Your task to perform on an android device: toggle airplane mode Image 0: 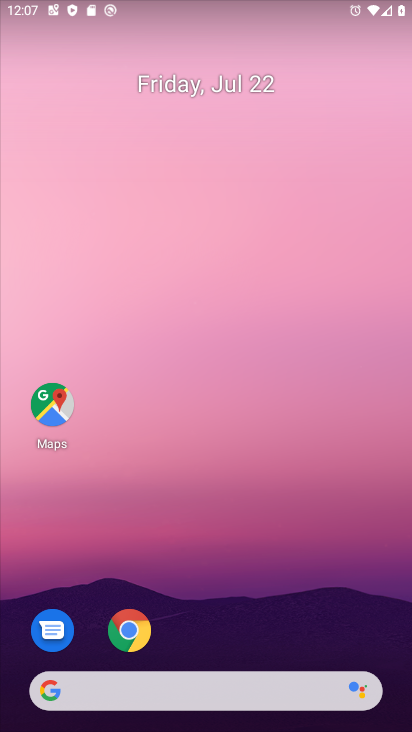
Step 0: drag from (226, 591) to (76, 50)
Your task to perform on an android device: toggle airplane mode Image 1: 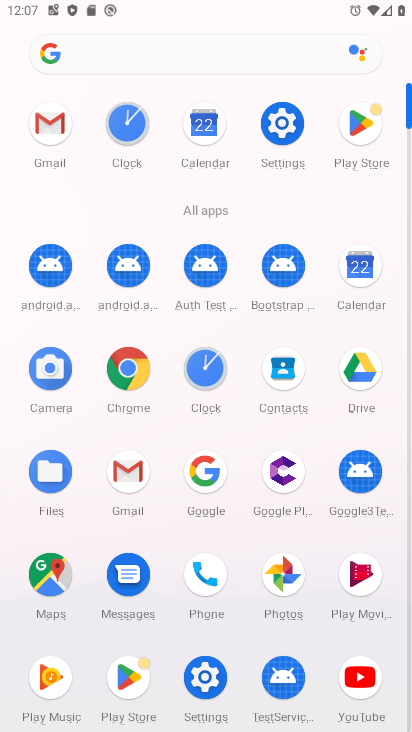
Step 1: click (284, 130)
Your task to perform on an android device: toggle airplane mode Image 2: 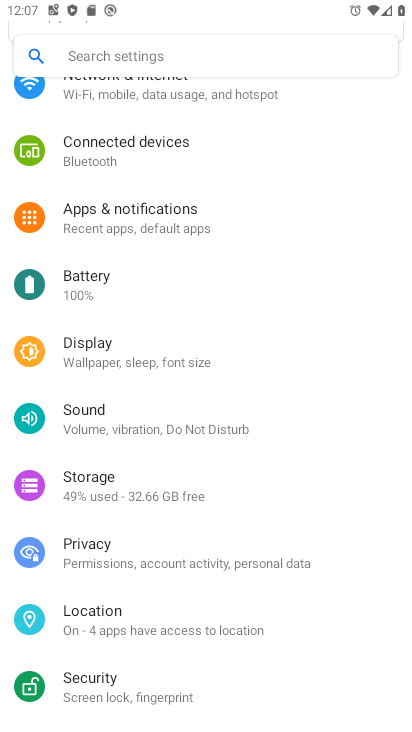
Step 2: drag from (172, 156) to (185, 269)
Your task to perform on an android device: toggle airplane mode Image 3: 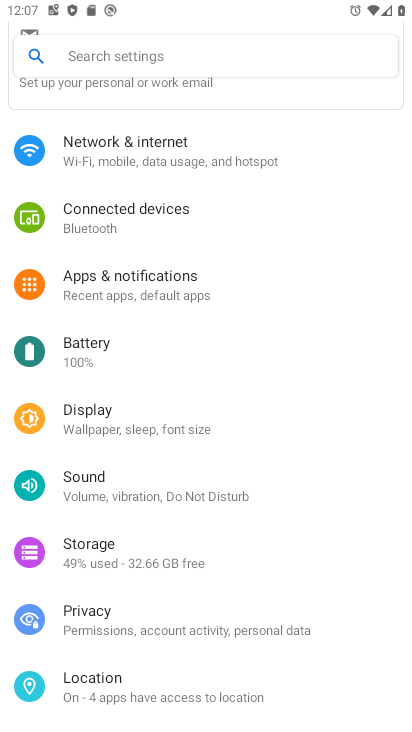
Step 3: click (201, 160)
Your task to perform on an android device: toggle airplane mode Image 4: 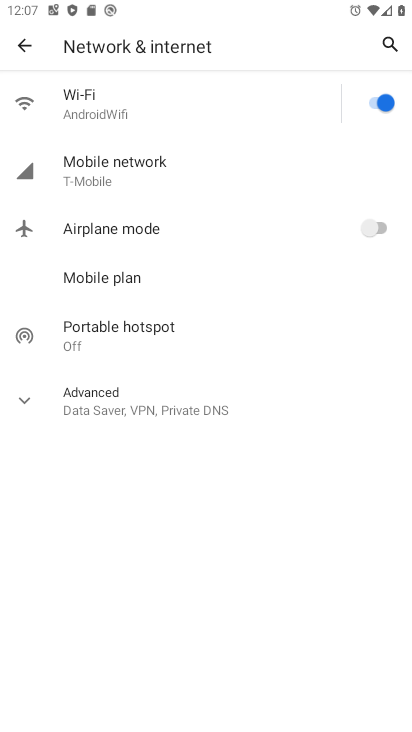
Step 4: click (375, 222)
Your task to perform on an android device: toggle airplane mode Image 5: 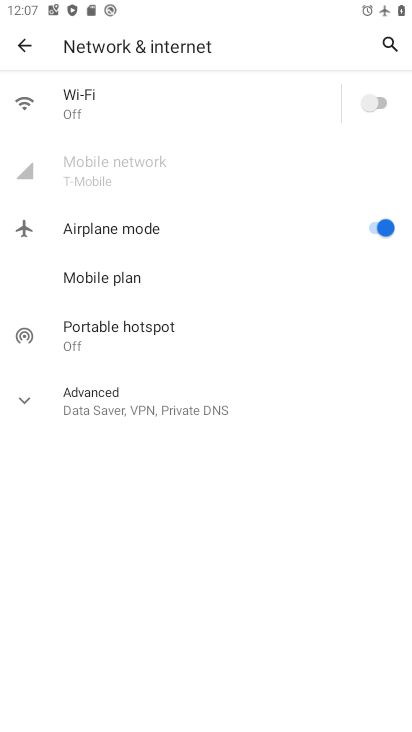
Step 5: task complete